Your task to perform on an android device: Open Google Maps Image 0: 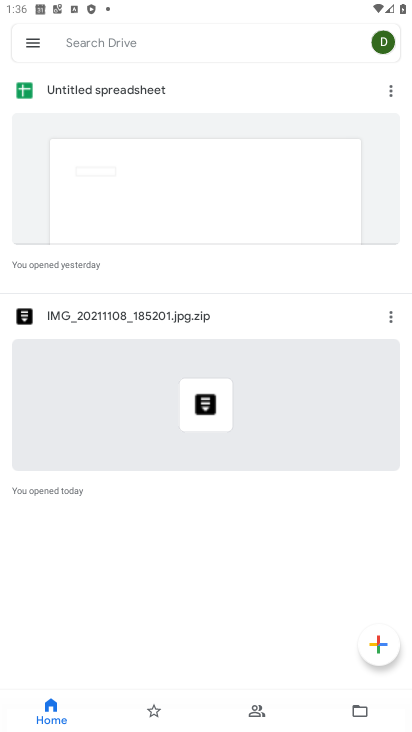
Step 0: press home button
Your task to perform on an android device: Open Google Maps Image 1: 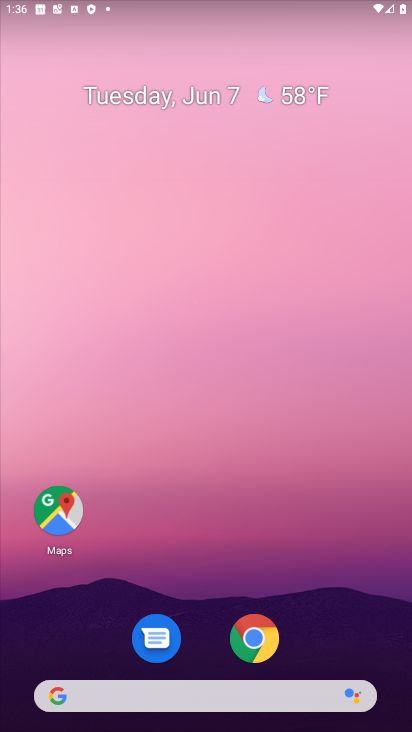
Step 1: drag from (219, 540) to (258, 225)
Your task to perform on an android device: Open Google Maps Image 2: 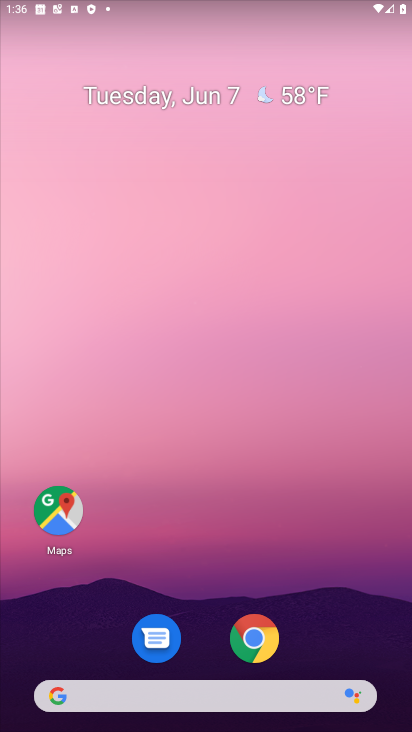
Step 2: drag from (206, 628) to (239, 194)
Your task to perform on an android device: Open Google Maps Image 3: 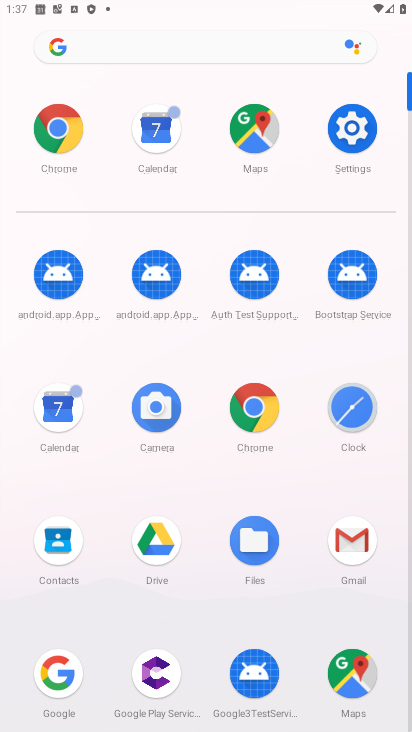
Step 3: drag from (108, 660) to (186, 227)
Your task to perform on an android device: Open Google Maps Image 4: 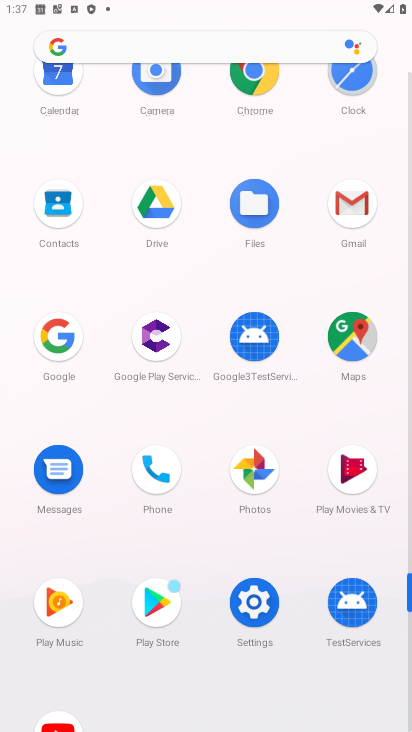
Step 4: click (355, 333)
Your task to perform on an android device: Open Google Maps Image 5: 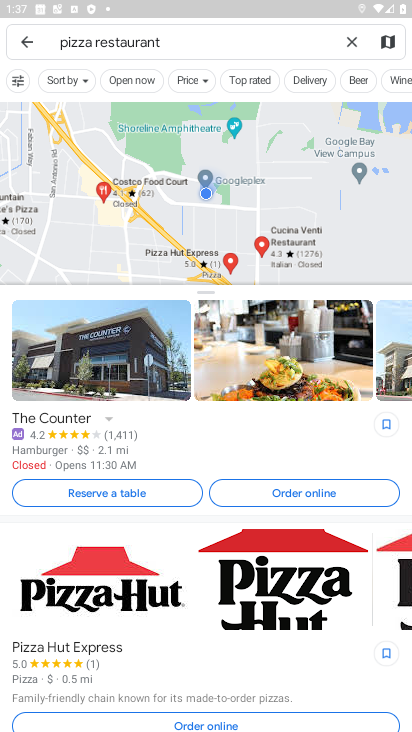
Step 5: task complete